Your task to perform on an android device: How much does a 3 bedroom apartment rent for in Boston? Image 0: 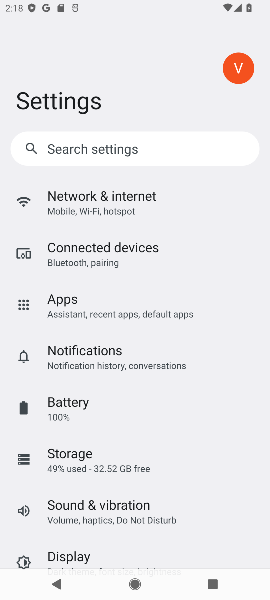
Step 0: press home button
Your task to perform on an android device: How much does a 3 bedroom apartment rent for in Boston? Image 1: 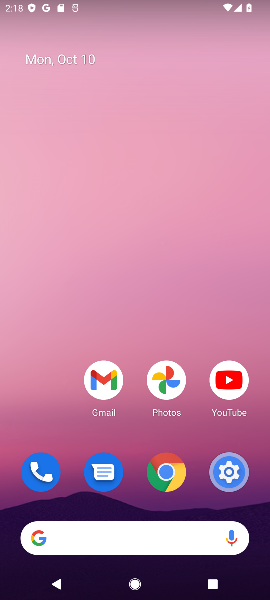
Step 1: click (142, 530)
Your task to perform on an android device: How much does a 3 bedroom apartment rent for in Boston? Image 2: 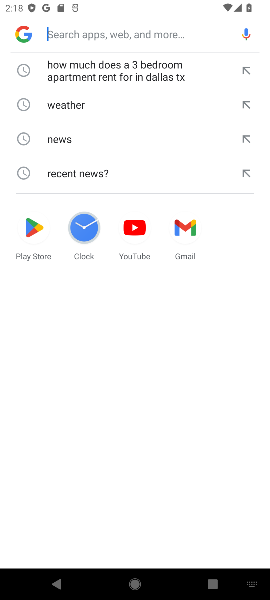
Step 2: type "How much does a 3 bedroom apartment rent for in Boston"
Your task to perform on an android device: How much does a 3 bedroom apartment rent for in Boston? Image 3: 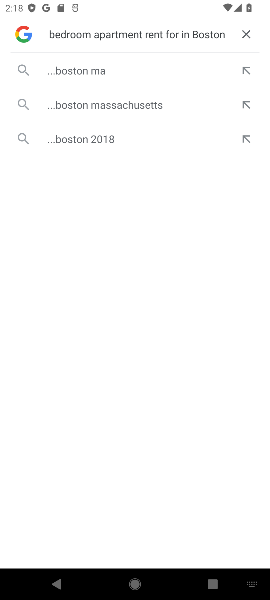
Step 3: click (83, 67)
Your task to perform on an android device: How much does a 3 bedroom apartment rent for in Boston? Image 4: 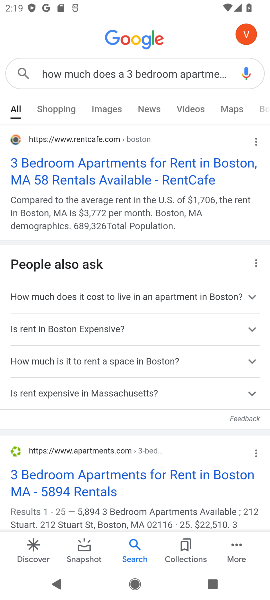
Step 4: task complete